Your task to perform on an android device: search for starred emails in the gmail app Image 0: 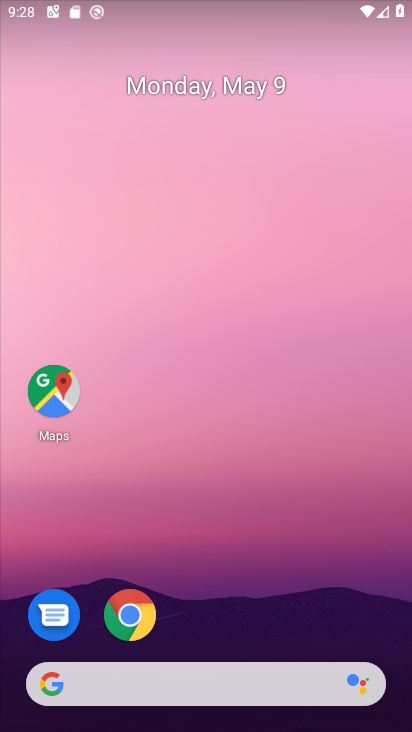
Step 0: drag from (268, 723) to (163, 249)
Your task to perform on an android device: search for starred emails in the gmail app Image 1: 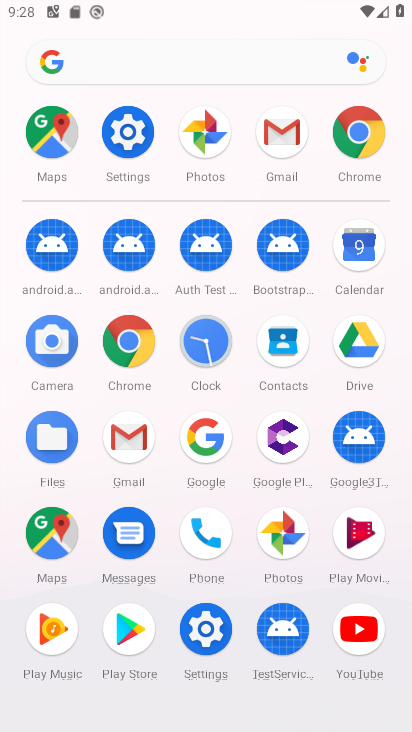
Step 1: click (273, 154)
Your task to perform on an android device: search for starred emails in the gmail app Image 2: 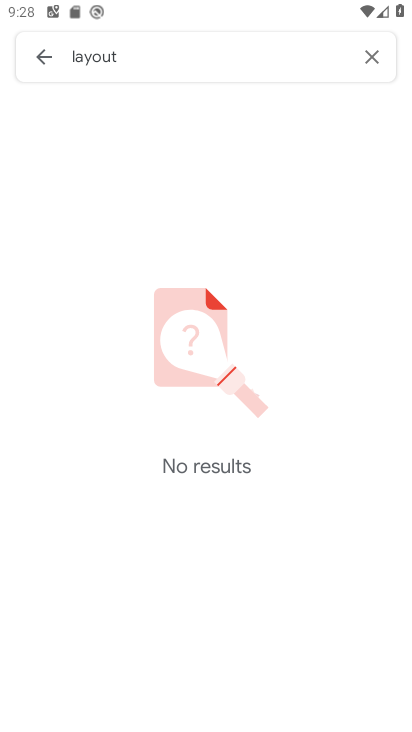
Step 2: click (43, 60)
Your task to perform on an android device: search for starred emails in the gmail app Image 3: 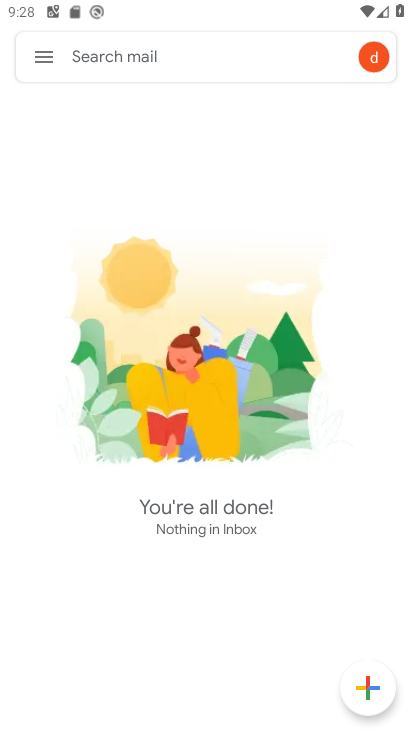
Step 3: click (48, 64)
Your task to perform on an android device: search for starred emails in the gmail app Image 4: 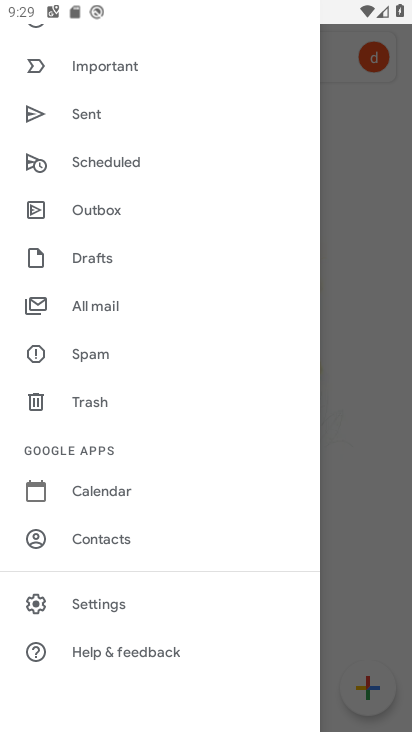
Step 4: drag from (76, 138) to (123, 299)
Your task to perform on an android device: search for starred emails in the gmail app Image 5: 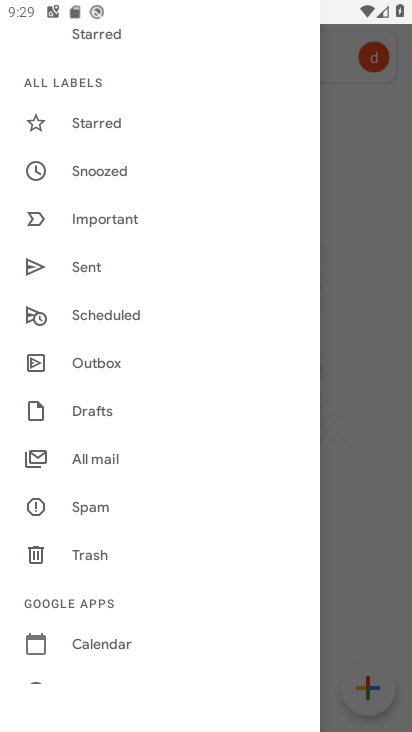
Step 5: click (90, 125)
Your task to perform on an android device: search for starred emails in the gmail app Image 6: 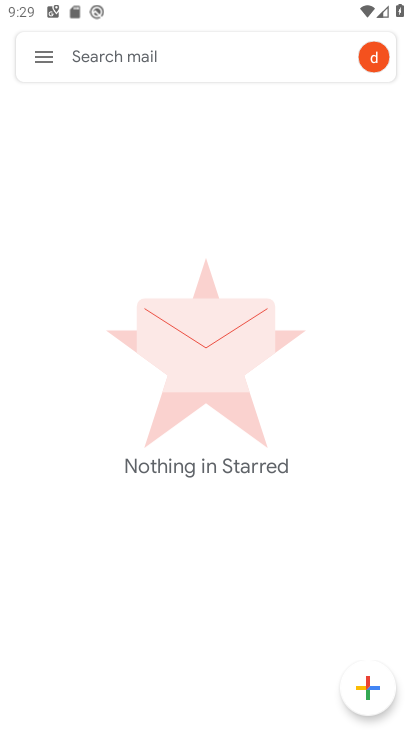
Step 6: task complete